Your task to perform on an android device: turn on location history Image 0: 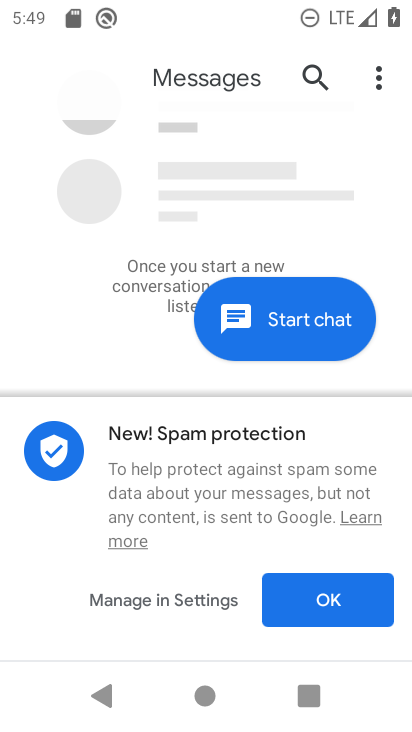
Step 0: press home button
Your task to perform on an android device: turn on location history Image 1: 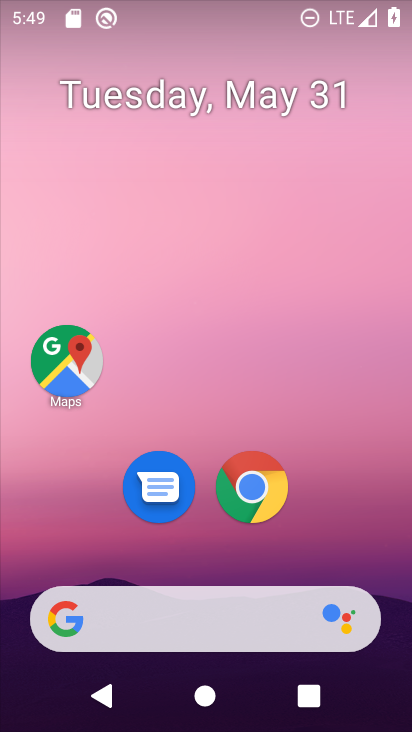
Step 1: click (50, 374)
Your task to perform on an android device: turn on location history Image 2: 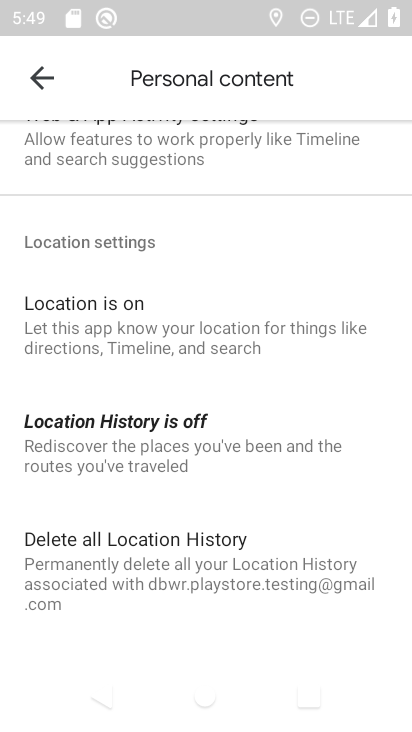
Step 2: click (134, 419)
Your task to perform on an android device: turn on location history Image 3: 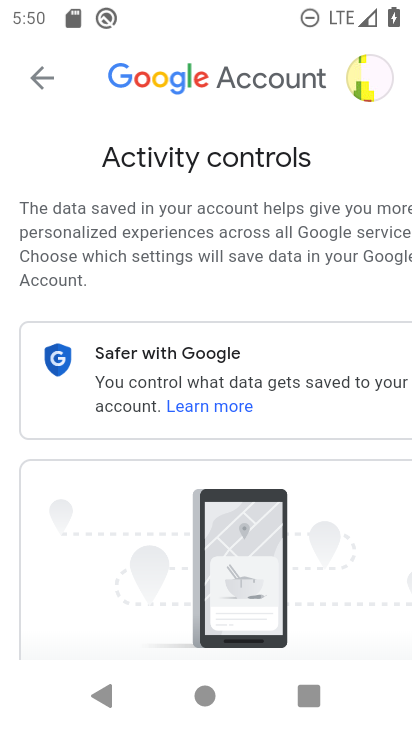
Step 3: drag from (338, 427) to (314, 162)
Your task to perform on an android device: turn on location history Image 4: 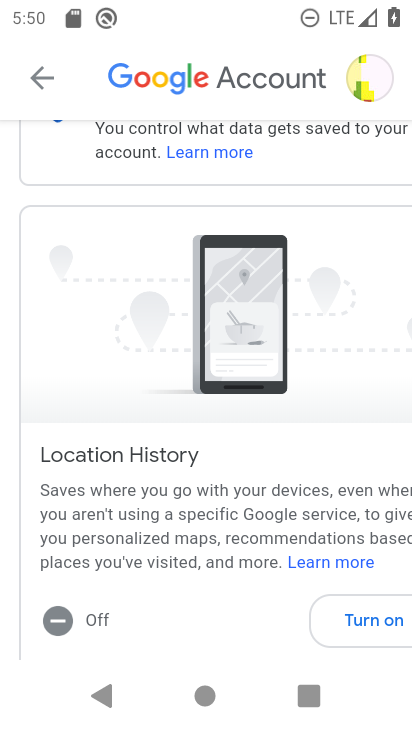
Step 4: click (360, 621)
Your task to perform on an android device: turn on location history Image 5: 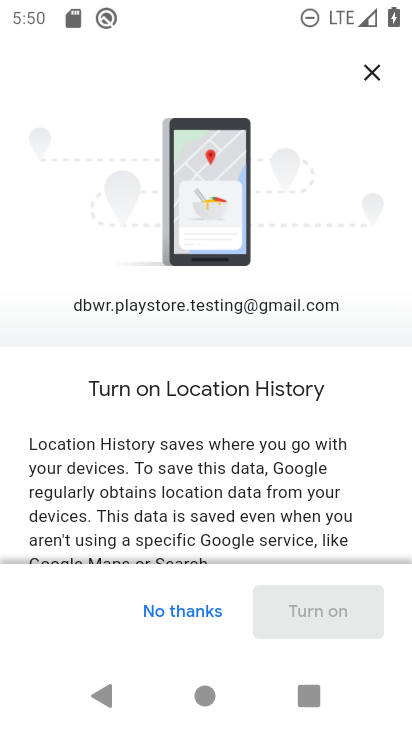
Step 5: drag from (245, 485) to (225, 132)
Your task to perform on an android device: turn on location history Image 6: 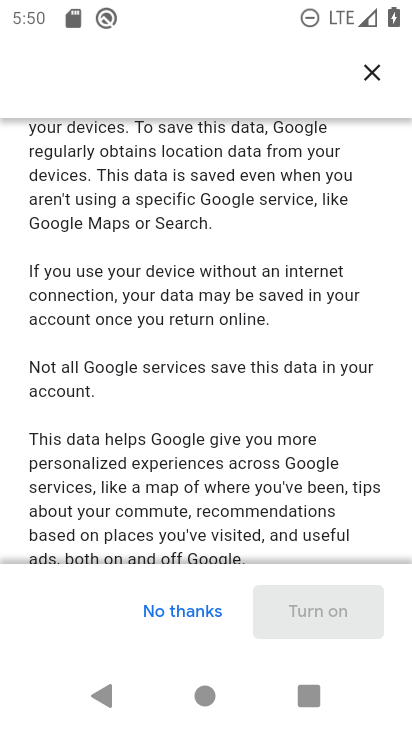
Step 6: drag from (294, 440) to (280, 117)
Your task to perform on an android device: turn on location history Image 7: 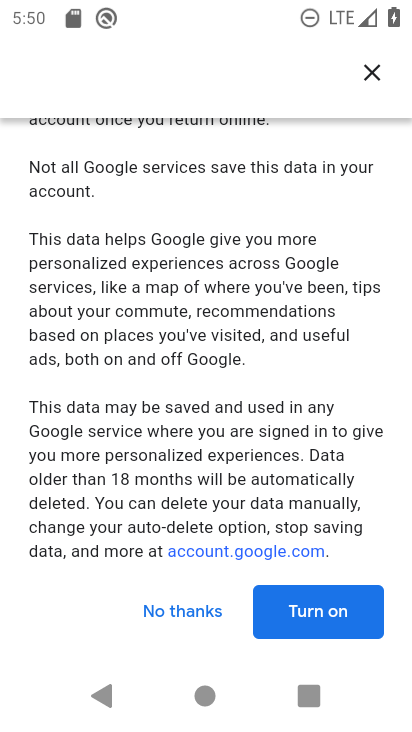
Step 7: click (320, 624)
Your task to perform on an android device: turn on location history Image 8: 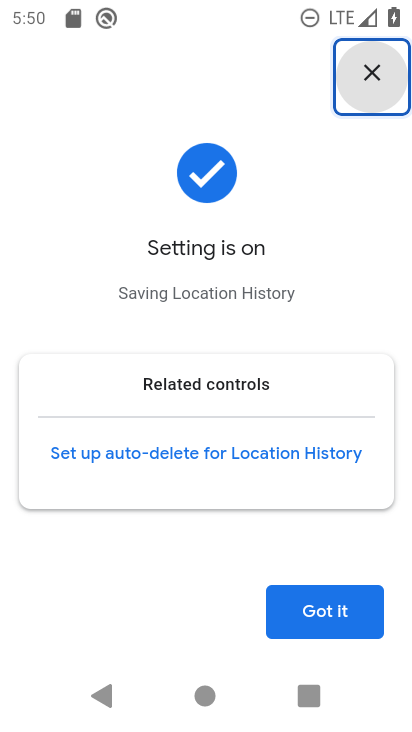
Step 8: click (292, 621)
Your task to perform on an android device: turn on location history Image 9: 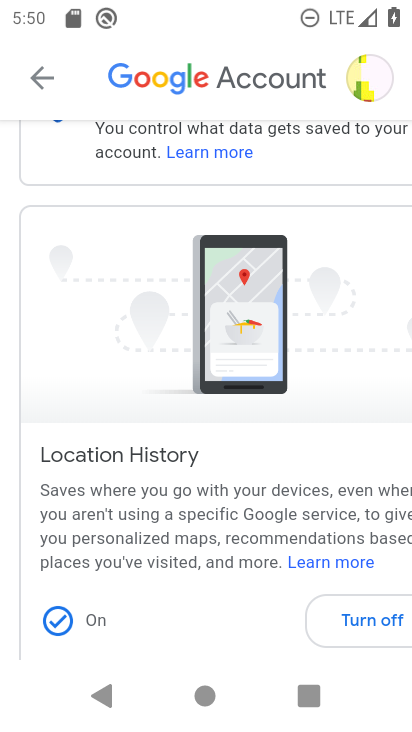
Step 9: task complete